Your task to perform on an android device: turn pop-ups off in chrome Image 0: 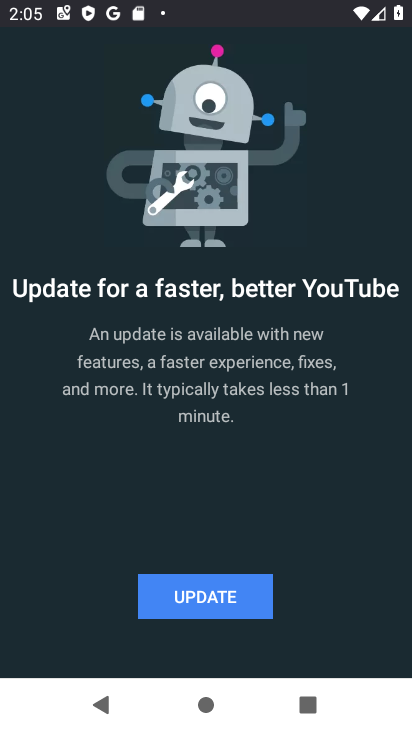
Step 0: press home button
Your task to perform on an android device: turn pop-ups off in chrome Image 1: 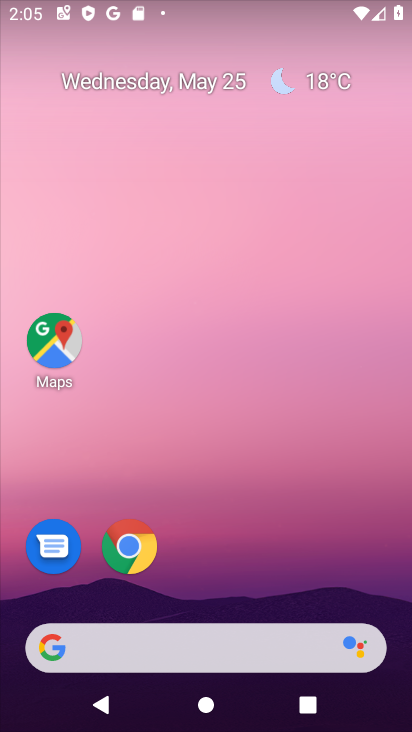
Step 1: click (133, 536)
Your task to perform on an android device: turn pop-ups off in chrome Image 2: 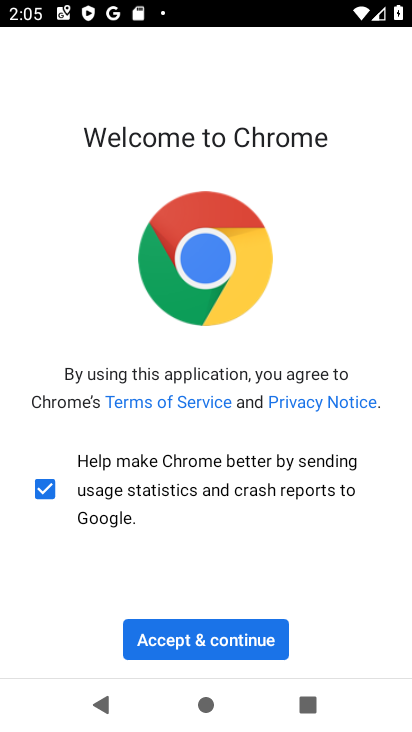
Step 2: click (210, 649)
Your task to perform on an android device: turn pop-ups off in chrome Image 3: 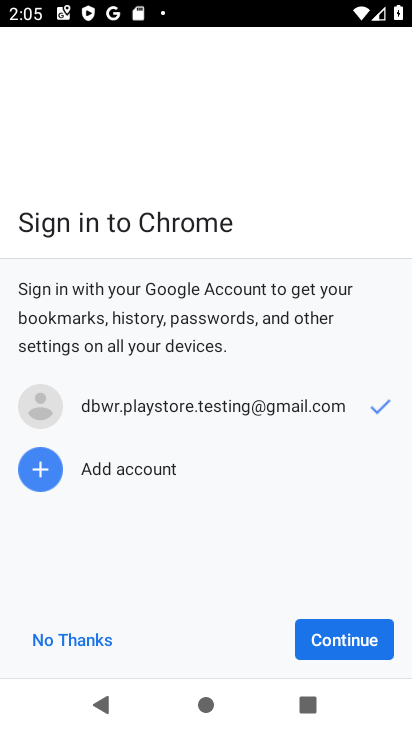
Step 3: click (346, 632)
Your task to perform on an android device: turn pop-ups off in chrome Image 4: 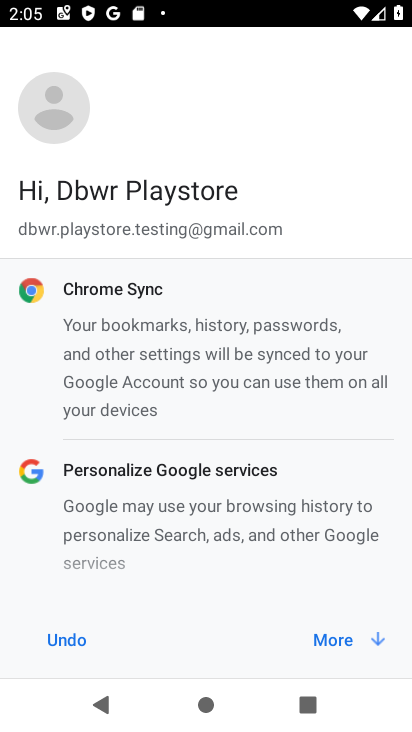
Step 4: click (364, 655)
Your task to perform on an android device: turn pop-ups off in chrome Image 5: 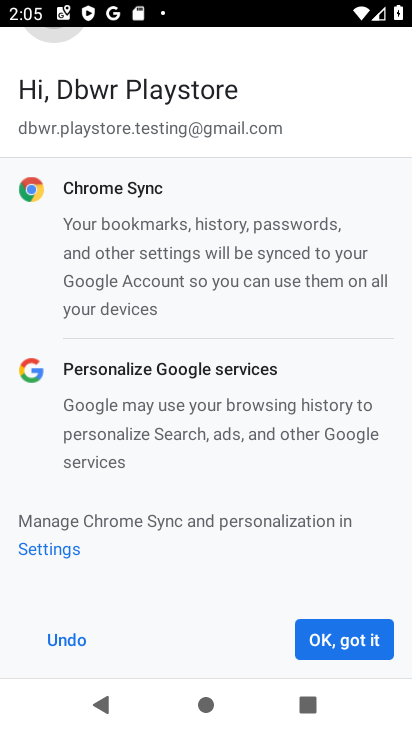
Step 5: click (362, 646)
Your task to perform on an android device: turn pop-ups off in chrome Image 6: 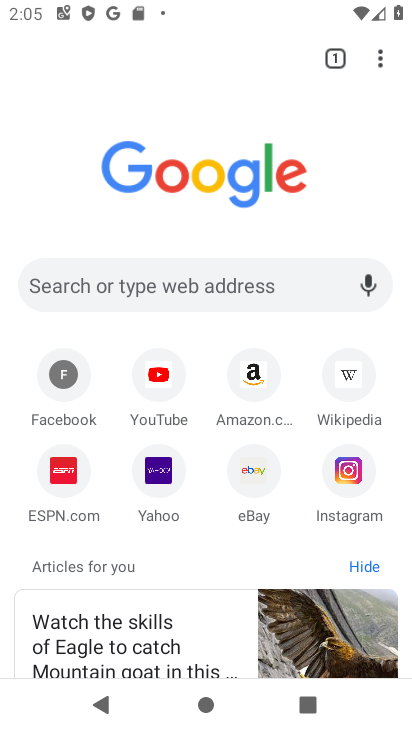
Step 6: click (383, 69)
Your task to perform on an android device: turn pop-ups off in chrome Image 7: 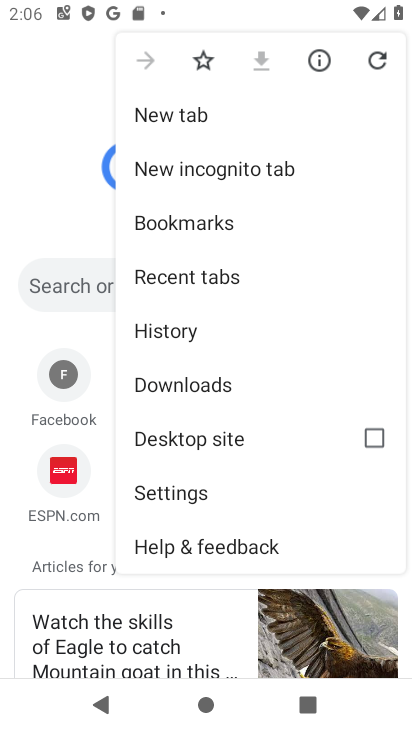
Step 7: drag from (200, 455) to (219, 321)
Your task to perform on an android device: turn pop-ups off in chrome Image 8: 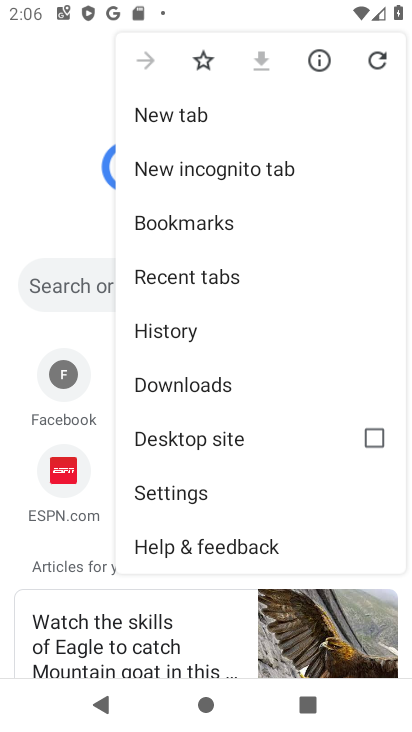
Step 8: click (208, 487)
Your task to perform on an android device: turn pop-ups off in chrome Image 9: 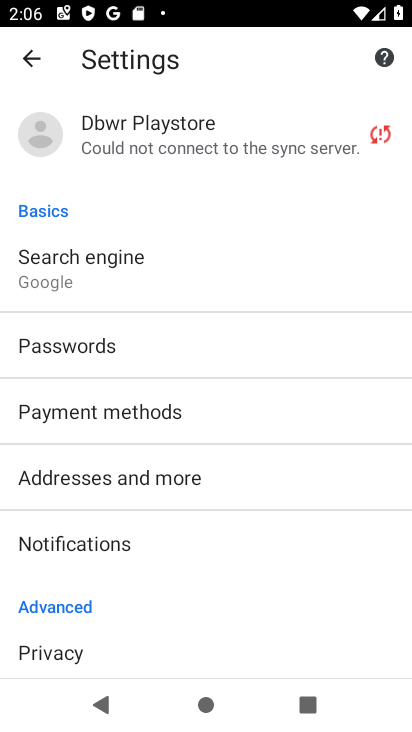
Step 9: drag from (146, 528) to (197, 272)
Your task to perform on an android device: turn pop-ups off in chrome Image 10: 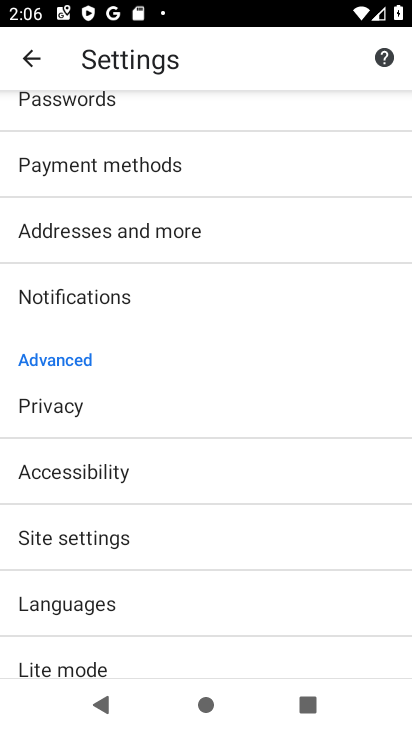
Step 10: click (105, 548)
Your task to perform on an android device: turn pop-ups off in chrome Image 11: 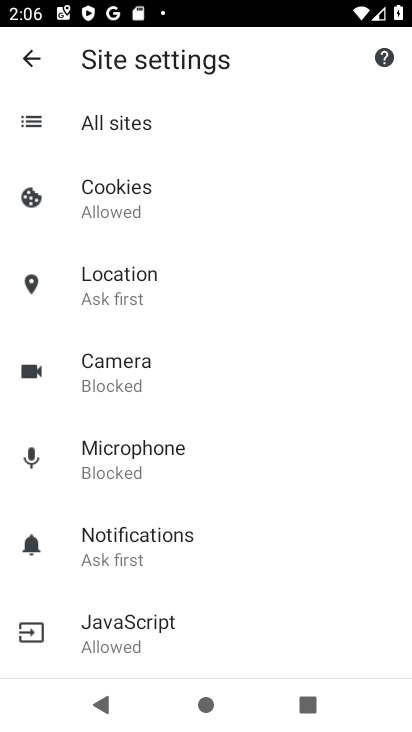
Step 11: drag from (138, 564) to (170, 250)
Your task to perform on an android device: turn pop-ups off in chrome Image 12: 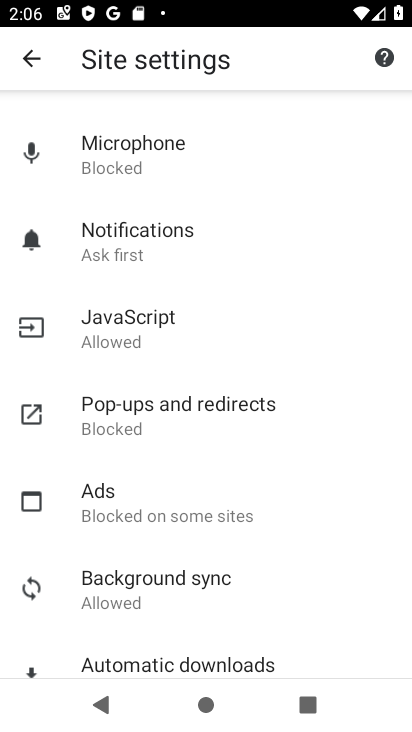
Step 12: click (171, 424)
Your task to perform on an android device: turn pop-ups off in chrome Image 13: 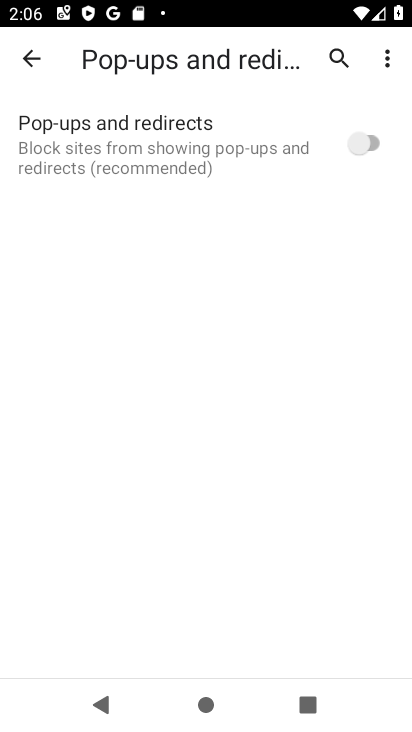
Step 13: task complete